Your task to perform on an android device: star an email in the gmail app Image 0: 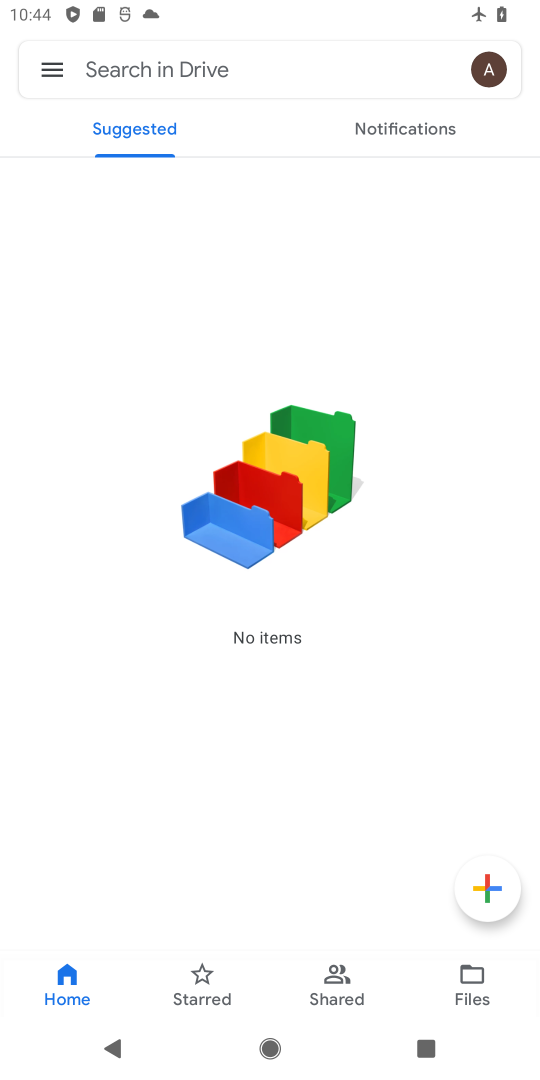
Step 0: press home button
Your task to perform on an android device: star an email in the gmail app Image 1: 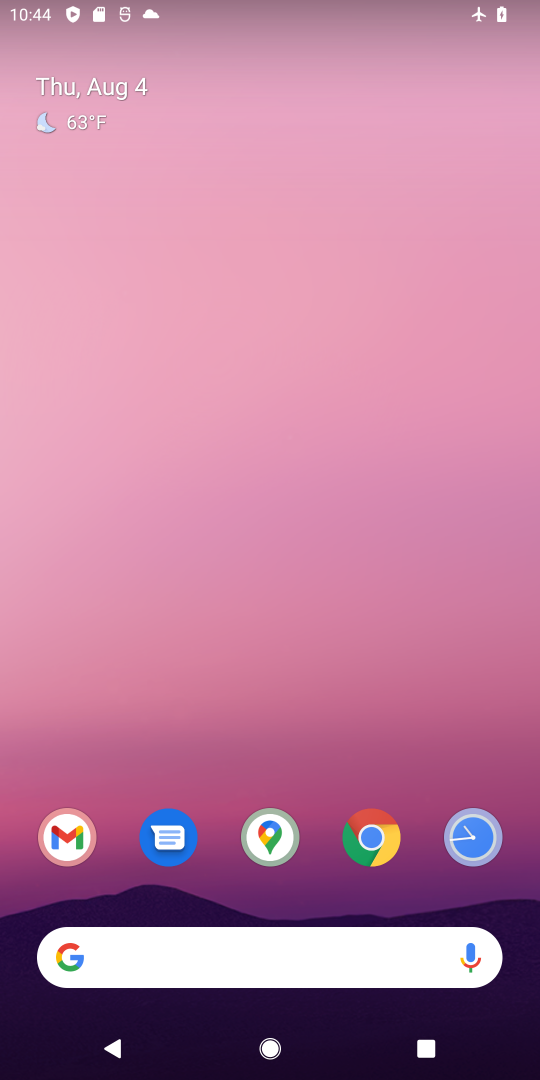
Step 1: drag from (160, 925) to (262, 286)
Your task to perform on an android device: star an email in the gmail app Image 2: 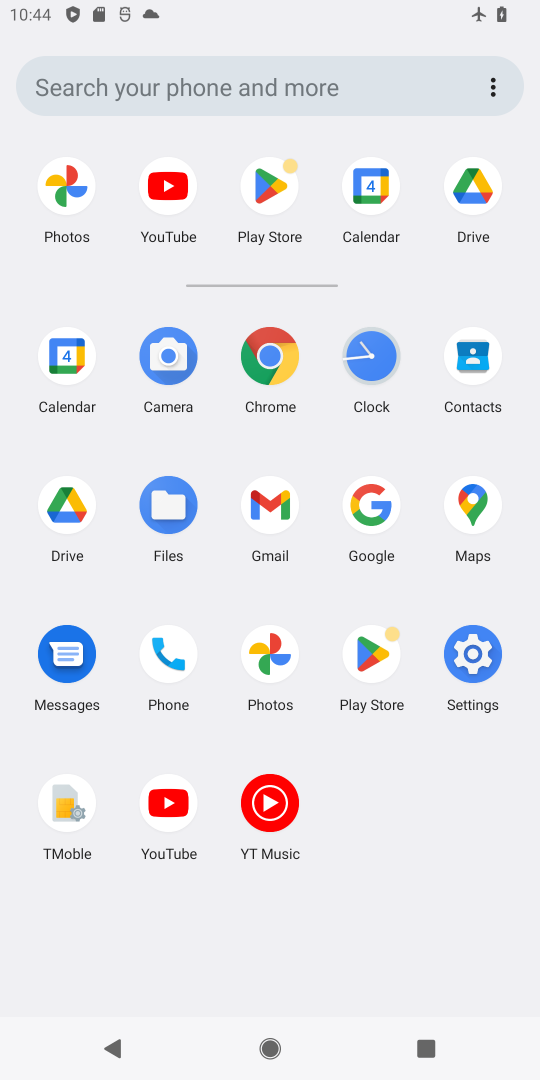
Step 2: click (276, 493)
Your task to perform on an android device: star an email in the gmail app Image 3: 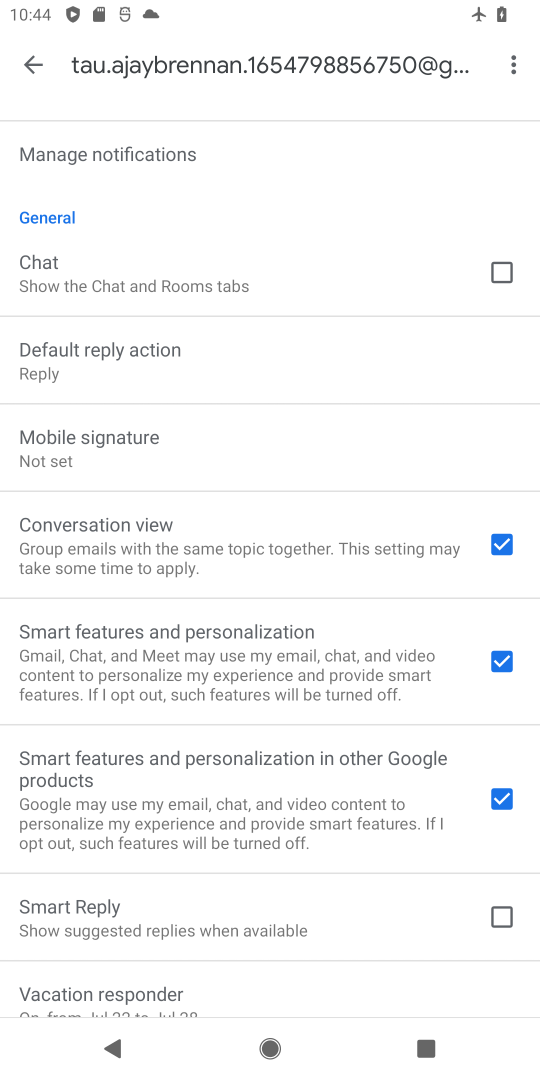
Step 3: click (31, 59)
Your task to perform on an android device: star an email in the gmail app Image 4: 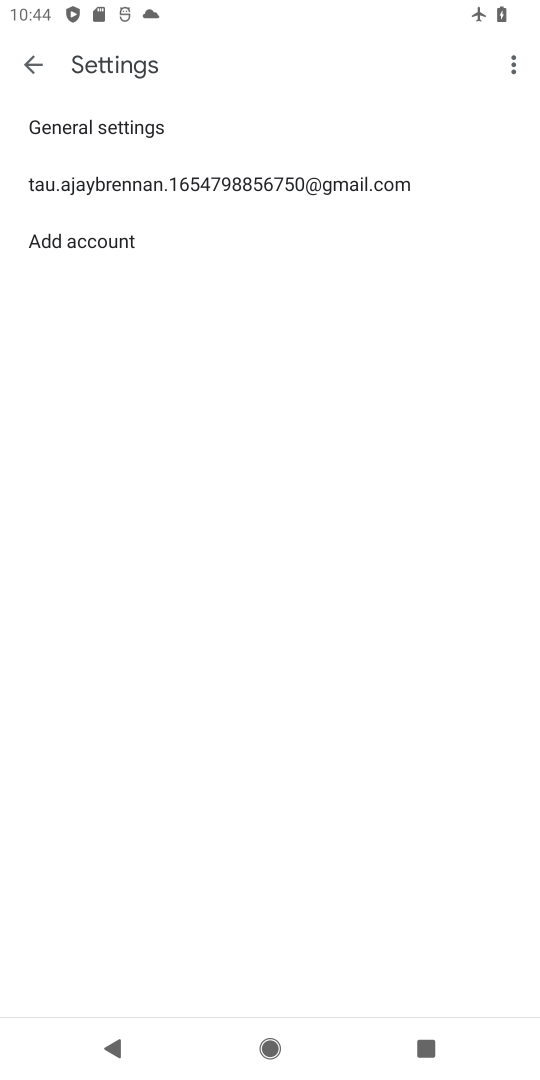
Step 4: click (36, 59)
Your task to perform on an android device: star an email in the gmail app Image 5: 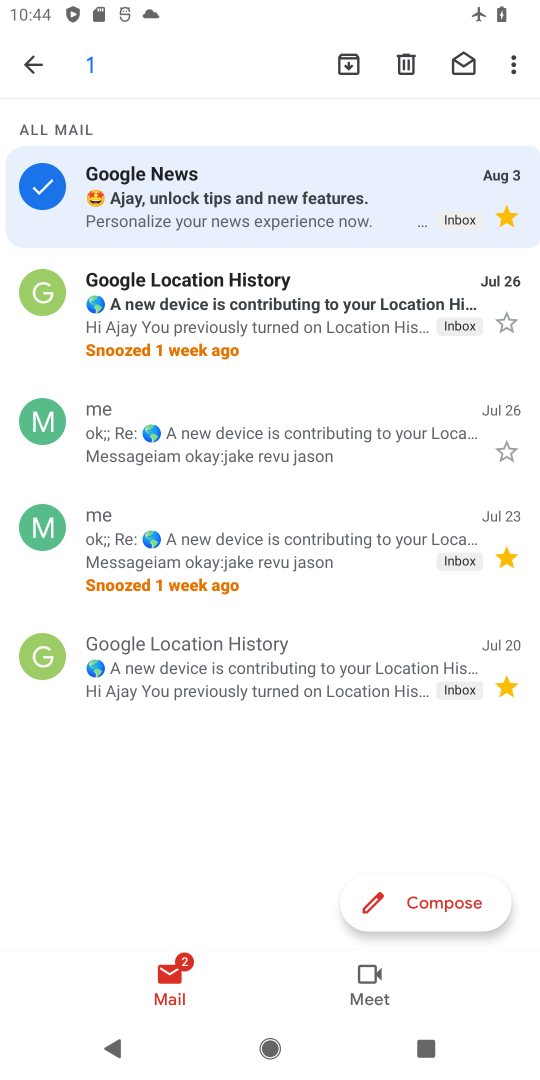
Step 5: click (45, 64)
Your task to perform on an android device: star an email in the gmail app Image 6: 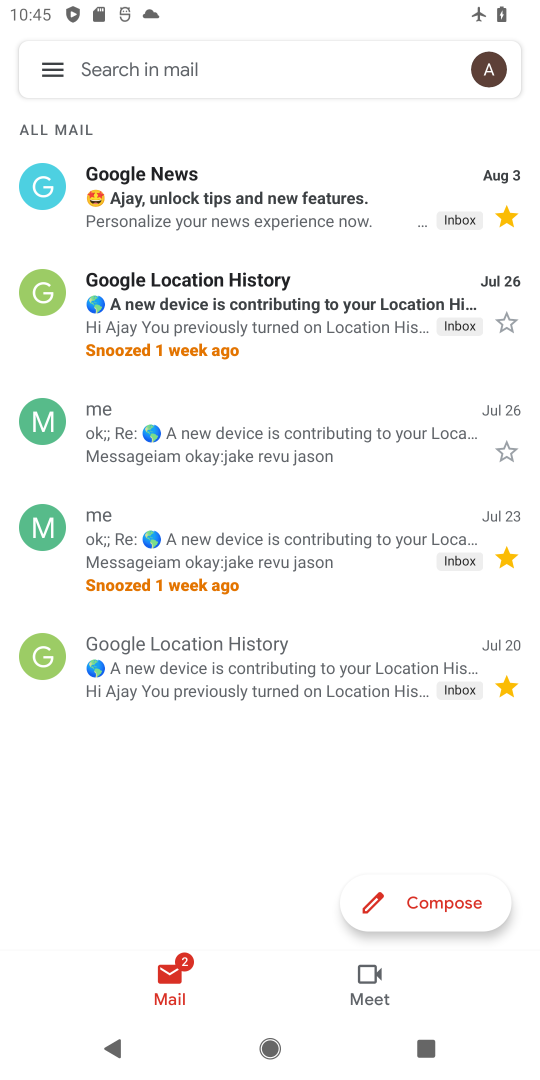
Step 6: click (54, 71)
Your task to perform on an android device: star an email in the gmail app Image 7: 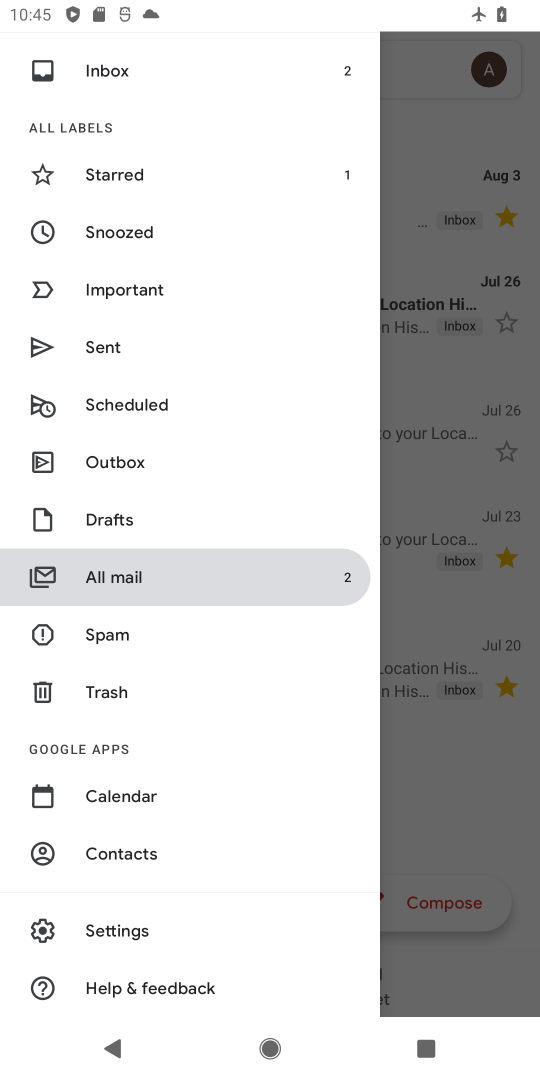
Step 7: click (126, 172)
Your task to perform on an android device: star an email in the gmail app Image 8: 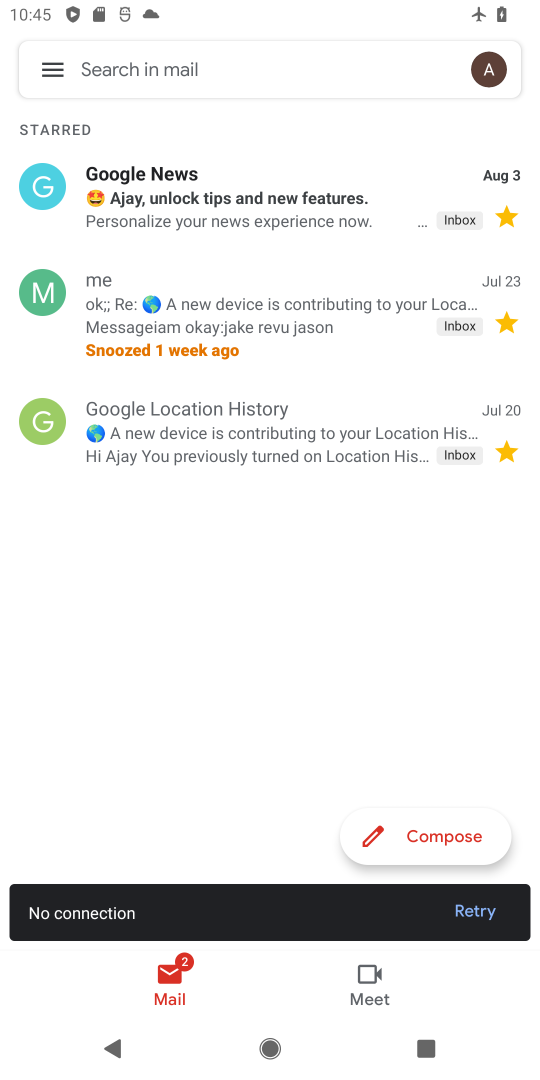
Step 8: task complete